Your task to perform on an android device: toggle translation in the chrome app Image 0: 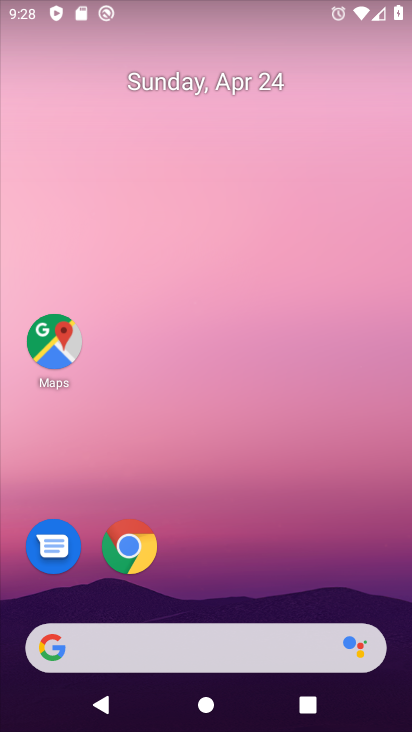
Step 0: click (143, 556)
Your task to perform on an android device: toggle translation in the chrome app Image 1: 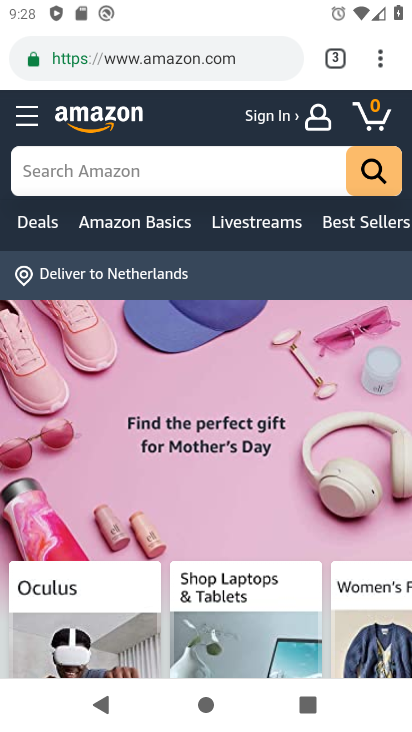
Step 1: click (380, 57)
Your task to perform on an android device: toggle translation in the chrome app Image 2: 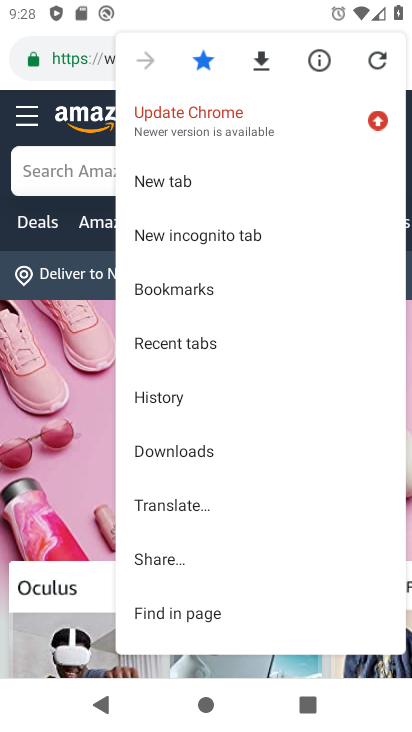
Step 2: drag from (225, 537) to (241, 214)
Your task to perform on an android device: toggle translation in the chrome app Image 3: 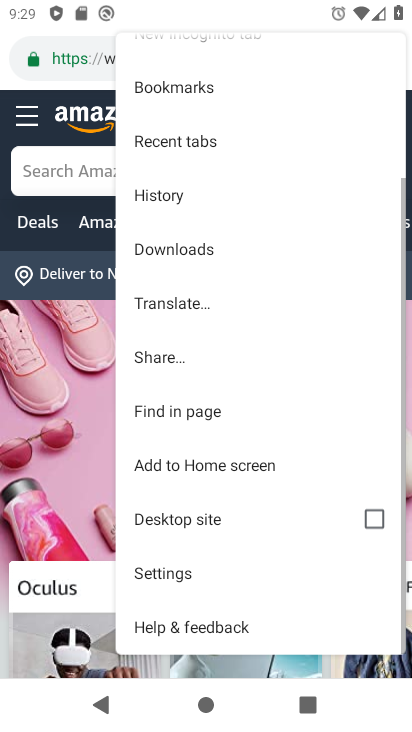
Step 3: drag from (202, 557) to (238, 279)
Your task to perform on an android device: toggle translation in the chrome app Image 4: 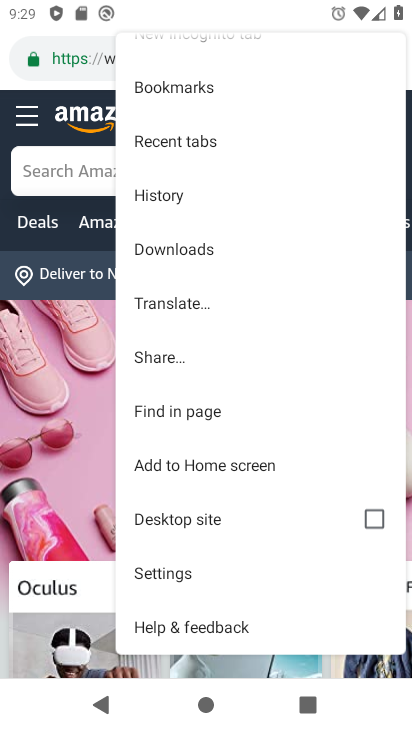
Step 4: click (185, 575)
Your task to perform on an android device: toggle translation in the chrome app Image 5: 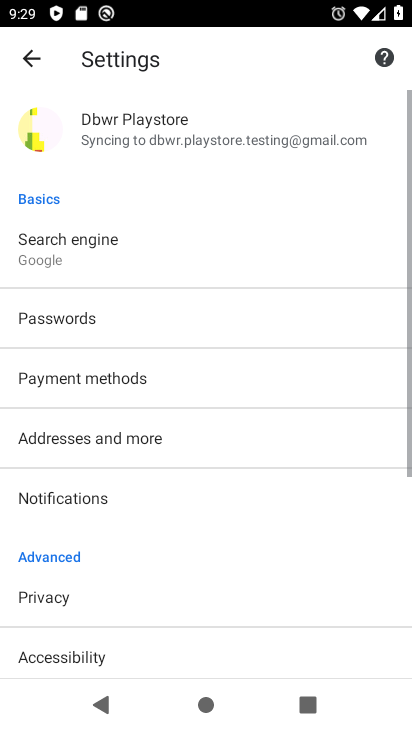
Step 5: drag from (185, 575) to (187, 125)
Your task to perform on an android device: toggle translation in the chrome app Image 6: 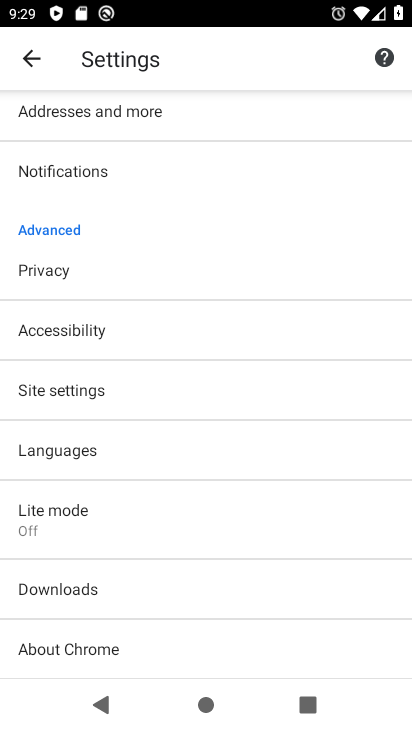
Step 6: click (125, 459)
Your task to perform on an android device: toggle translation in the chrome app Image 7: 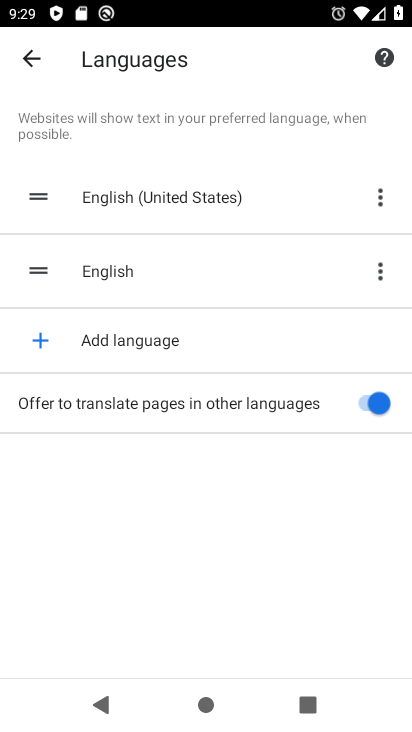
Step 7: click (383, 399)
Your task to perform on an android device: toggle translation in the chrome app Image 8: 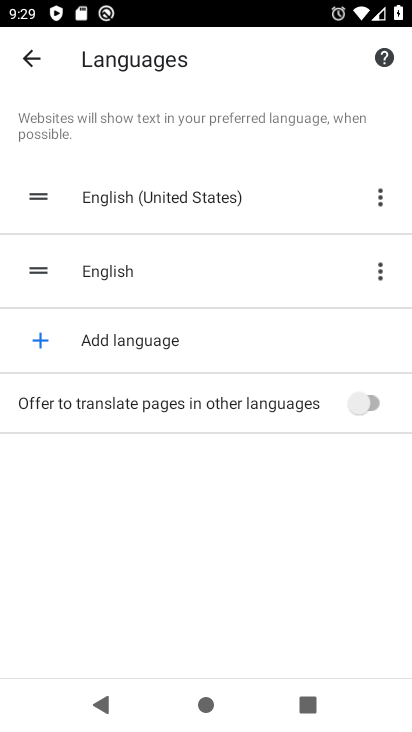
Step 8: task complete